Your task to perform on an android device: Show me productivity apps on the Play Store Image 0: 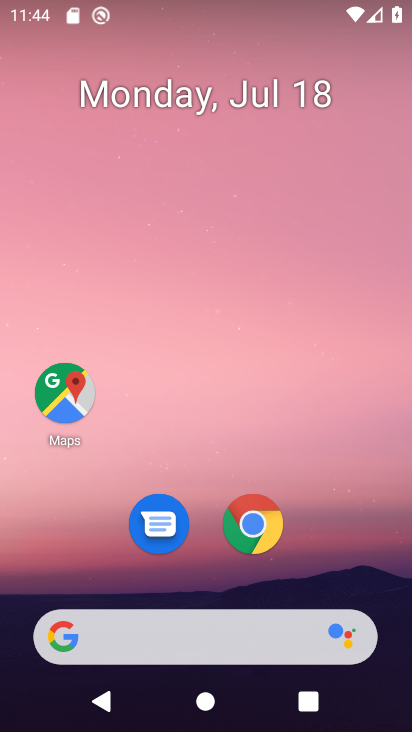
Step 0: drag from (331, 530) to (348, 7)
Your task to perform on an android device: Show me productivity apps on the Play Store Image 1: 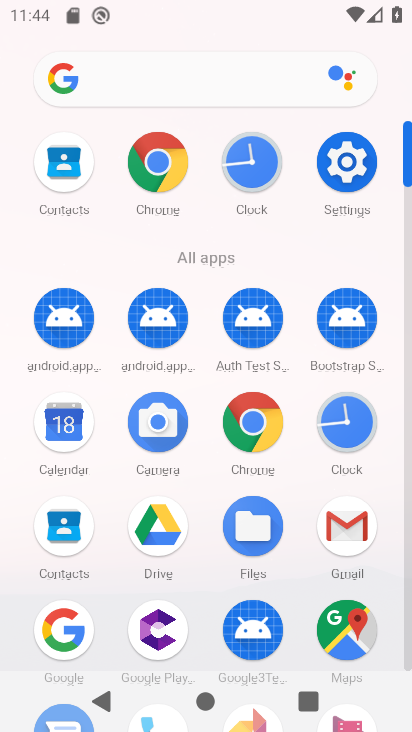
Step 1: drag from (212, 367) to (217, 170)
Your task to perform on an android device: Show me productivity apps on the Play Store Image 2: 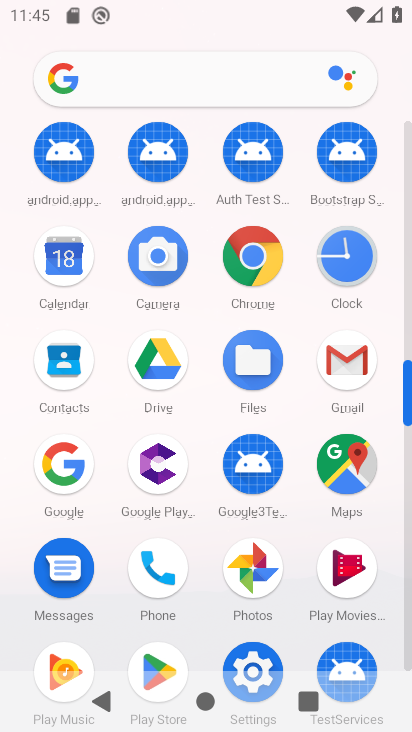
Step 2: drag from (210, 400) to (196, 284)
Your task to perform on an android device: Show me productivity apps on the Play Store Image 3: 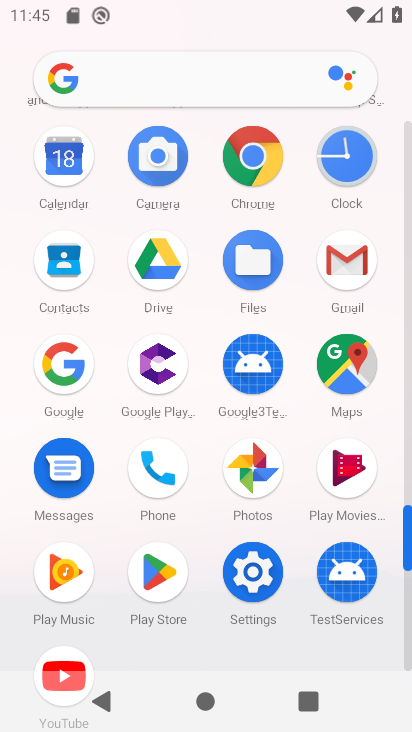
Step 3: click (163, 570)
Your task to perform on an android device: Show me productivity apps on the Play Store Image 4: 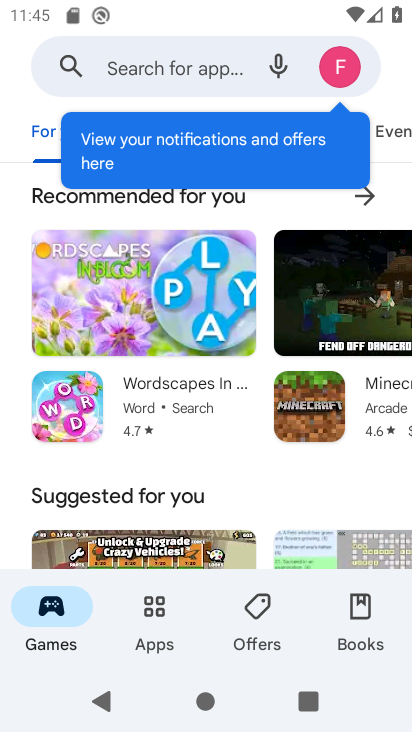
Step 4: click (155, 618)
Your task to perform on an android device: Show me productivity apps on the Play Store Image 5: 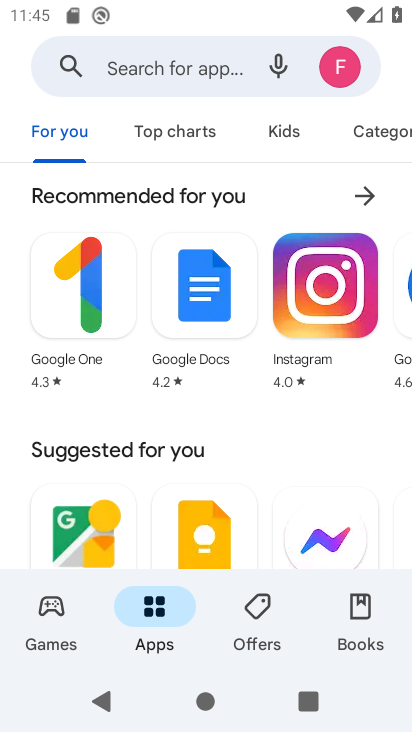
Step 5: click (396, 135)
Your task to perform on an android device: Show me productivity apps on the Play Store Image 6: 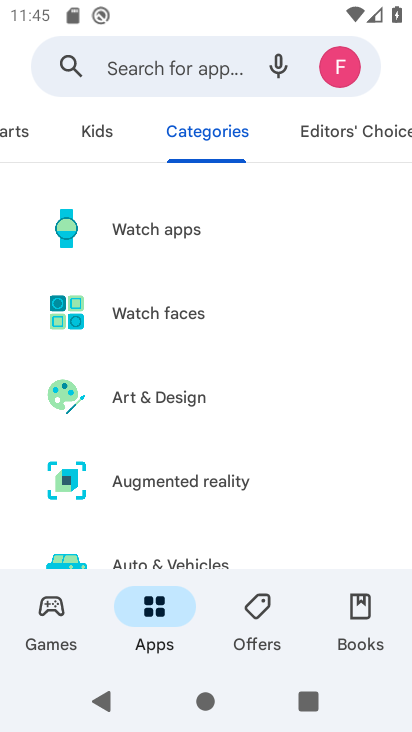
Step 6: drag from (245, 499) to (271, 118)
Your task to perform on an android device: Show me productivity apps on the Play Store Image 7: 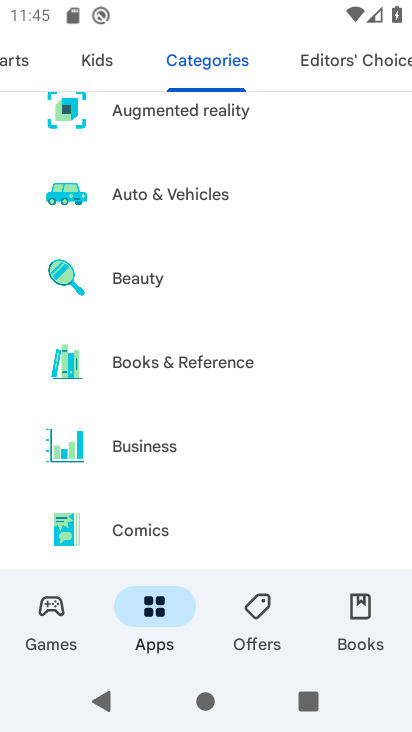
Step 7: drag from (235, 509) to (249, 127)
Your task to perform on an android device: Show me productivity apps on the Play Store Image 8: 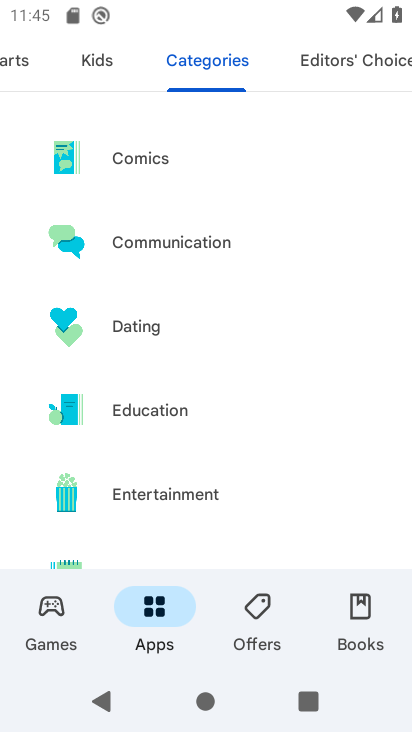
Step 8: drag from (227, 511) to (242, 134)
Your task to perform on an android device: Show me productivity apps on the Play Store Image 9: 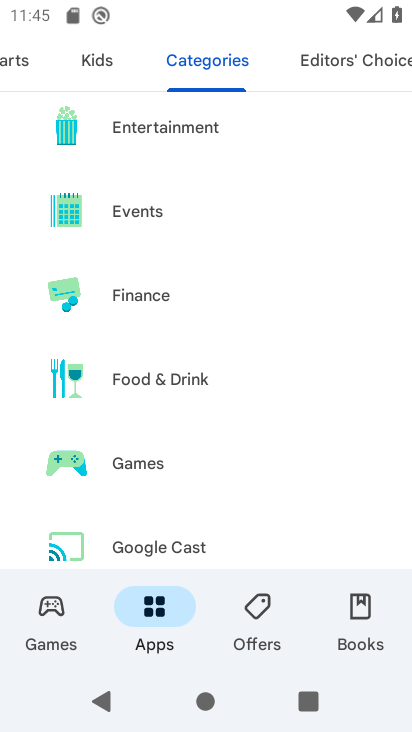
Step 9: drag from (219, 514) to (231, 140)
Your task to perform on an android device: Show me productivity apps on the Play Store Image 10: 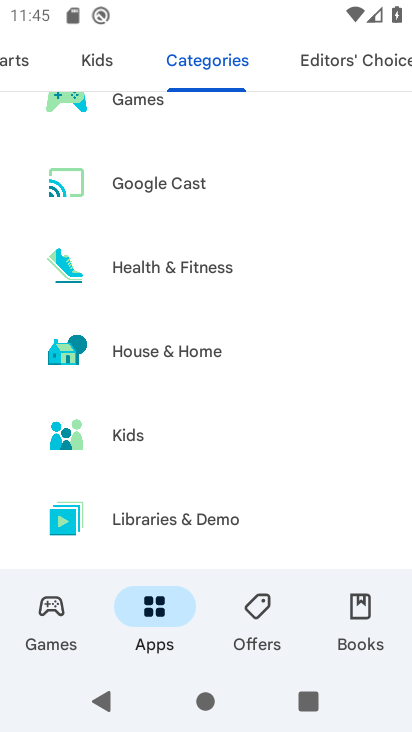
Step 10: drag from (213, 452) to (219, 124)
Your task to perform on an android device: Show me productivity apps on the Play Store Image 11: 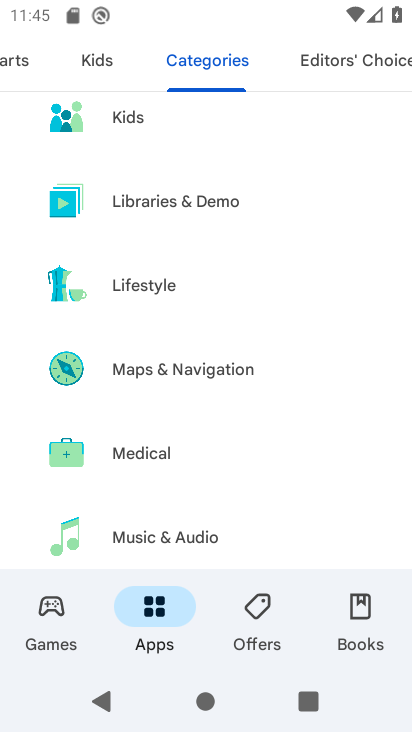
Step 11: drag from (237, 457) to (263, 134)
Your task to perform on an android device: Show me productivity apps on the Play Store Image 12: 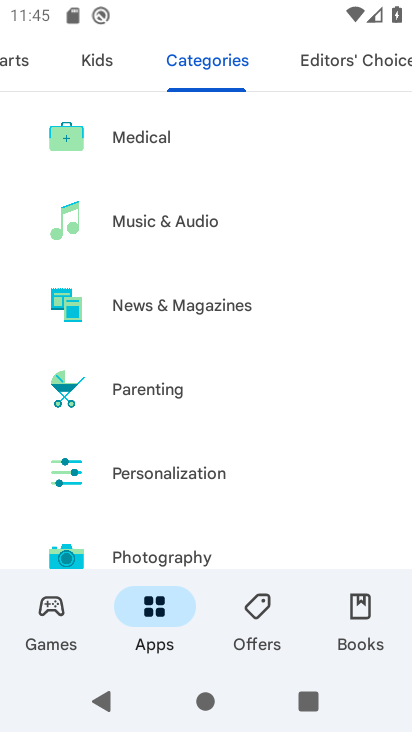
Step 12: drag from (215, 491) to (231, 181)
Your task to perform on an android device: Show me productivity apps on the Play Store Image 13: 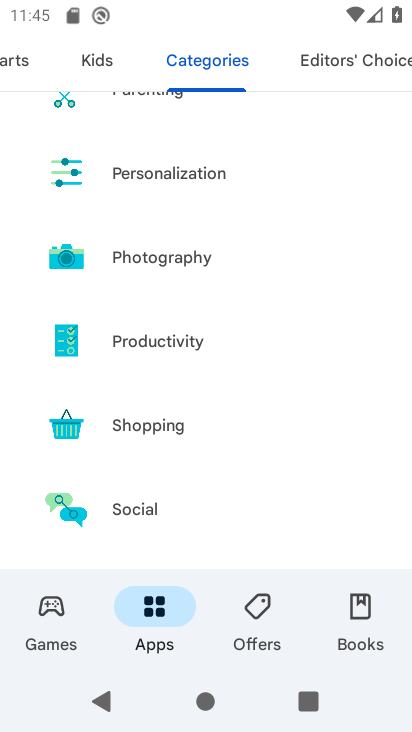
Step 13: click (188, 340)
Your task to perform on an android device: Show me productivity apps on the Play Store Image 14: 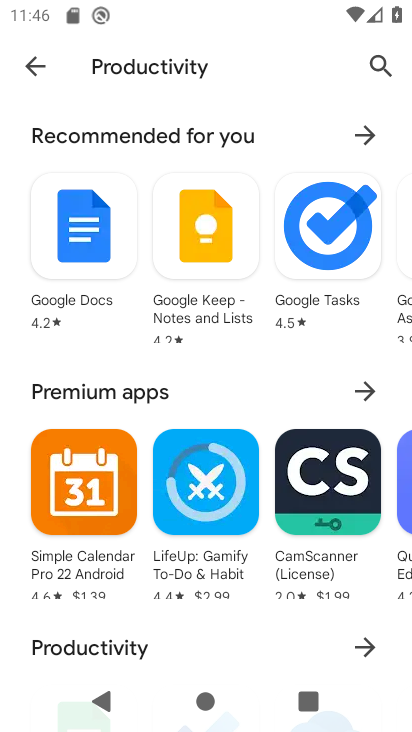
Step 14: task complete